Your task to perform on an android device: Show me the alarms in the clock app Image 0: 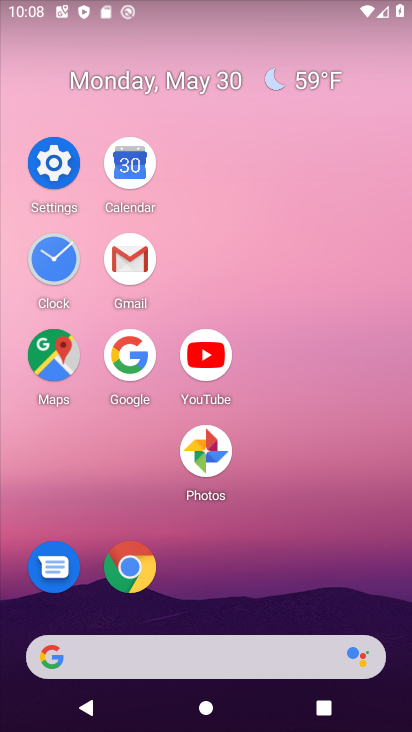
Step 0: click (51, 270)
Your task to perform on an android device: Show me the alarms in the clock app Image 1: 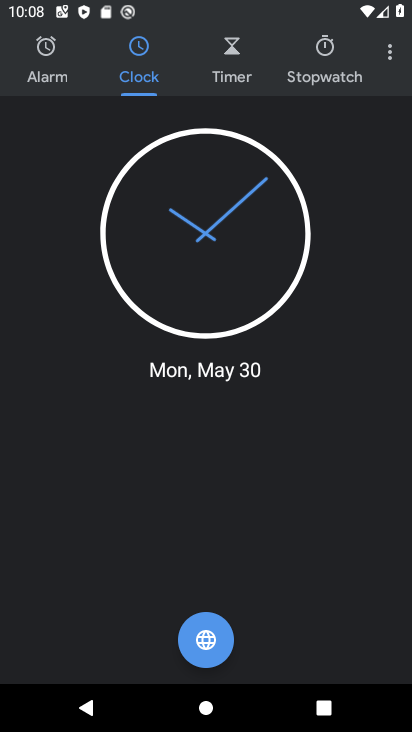
Step 1: click (67, 63)
Your task to perform on an android device: Show me the alarms in the clock app Image 2: 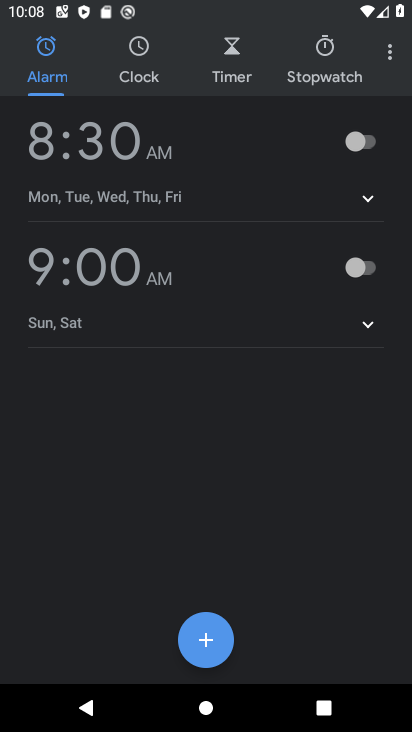
Step 2: task complete